Your task to perform on an android device: Clear the cart on walmart.com. Add bose soundlink to the cart on walmart.com, then select checkout. Image 0: 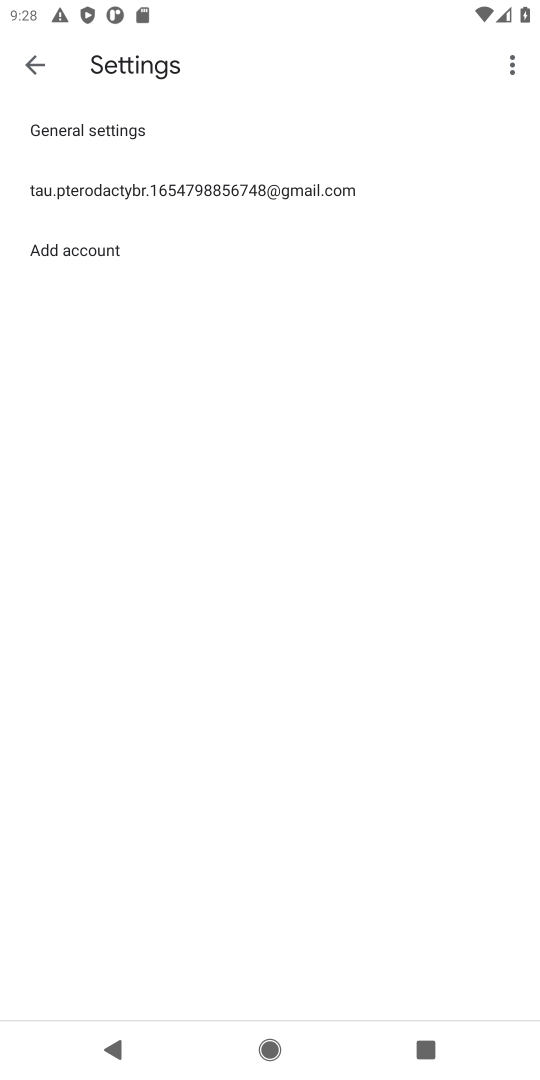
Step 0: task complete